Your task to perform on an android device: Show me the alarms in the clock app Image 0: 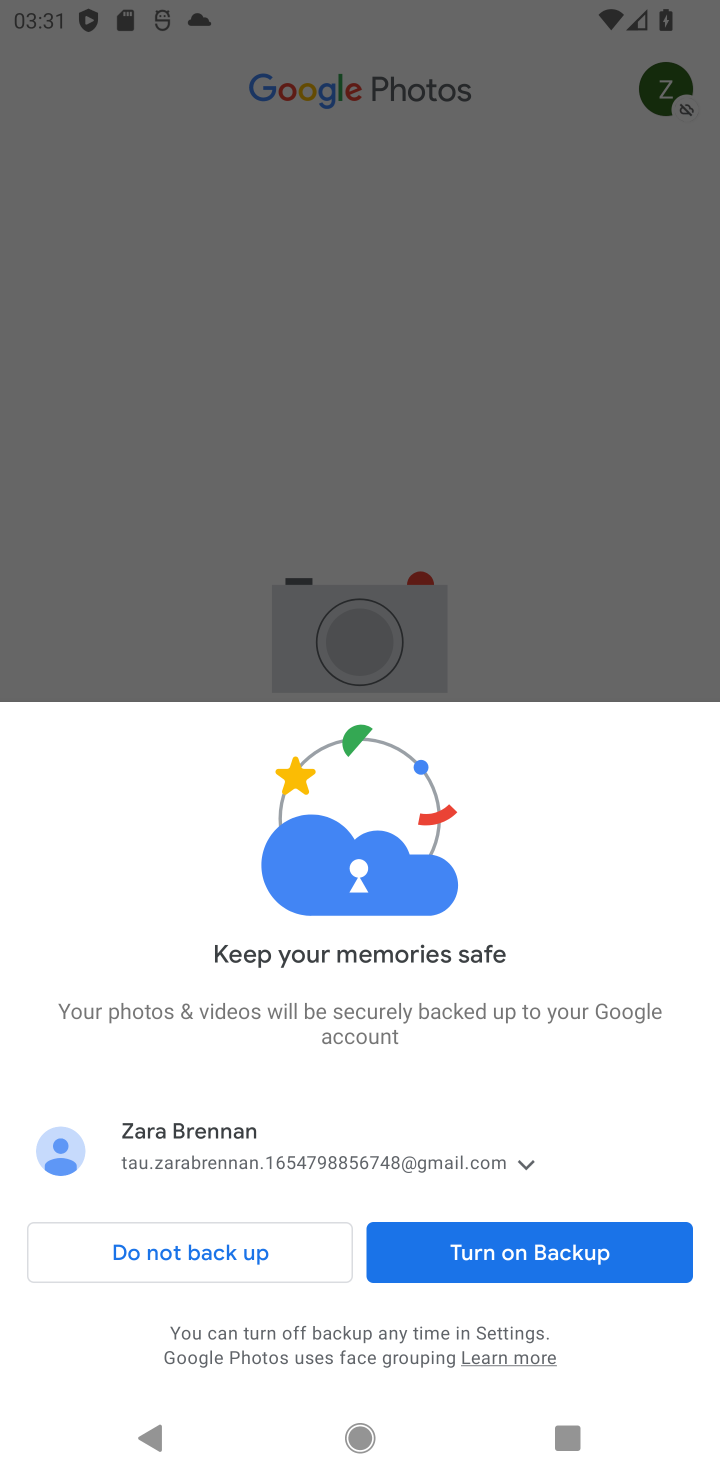
Step 0: press home button
Your task to perform on an android device: Show me the alarms in the clock app Image 1: 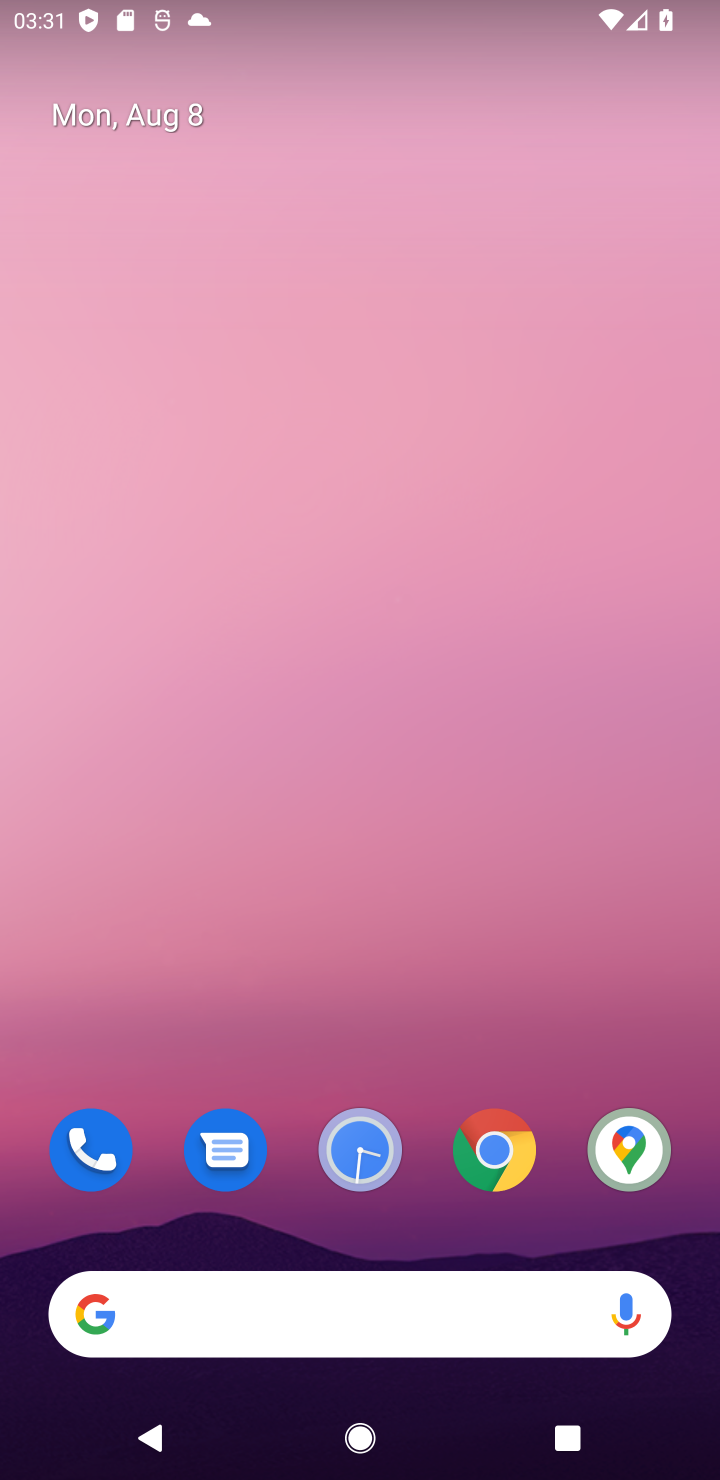
Step 1: click (357, 1165)
Your task to perform on an android device: Show me the alarms in the clock app Image 2: 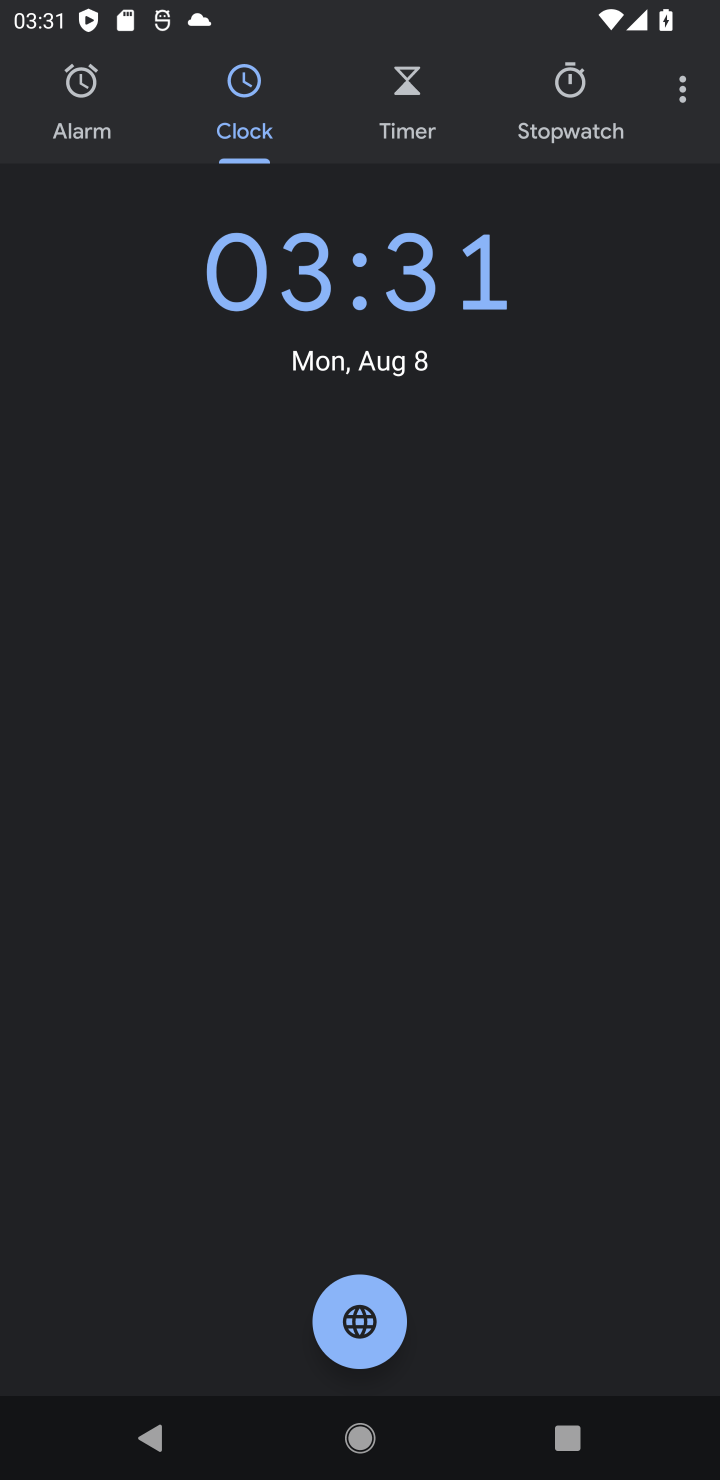
Step 2: click (91, 113)
Your task to perform on an android device: Show me the alarms in the clock app Image 3: 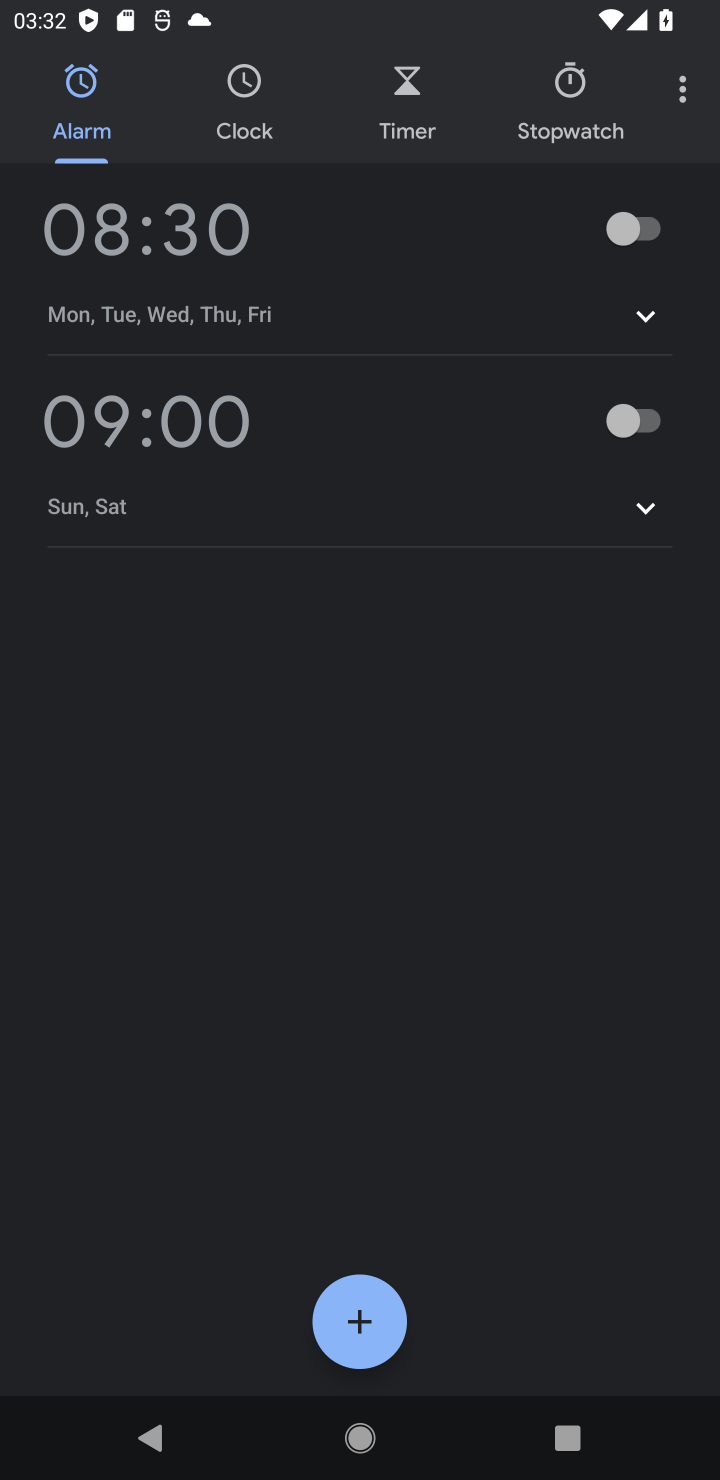
Step 3: task complete